Your task to perform on an android device: empty trash in the gmail app Image 0: 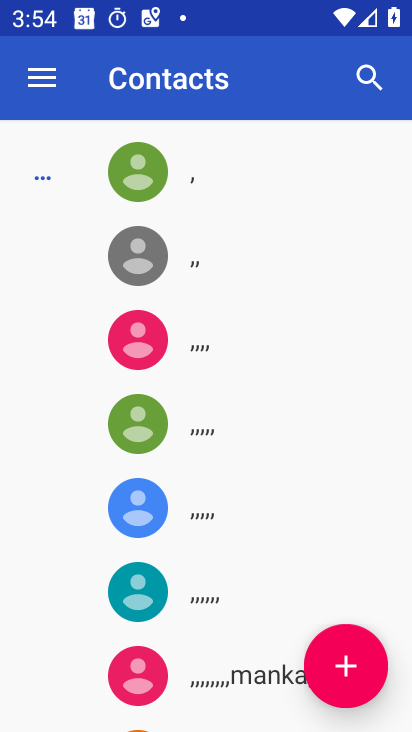
Step 0: press home button
Your task to perform on an android device: empty trash in the gmail app Image 1: 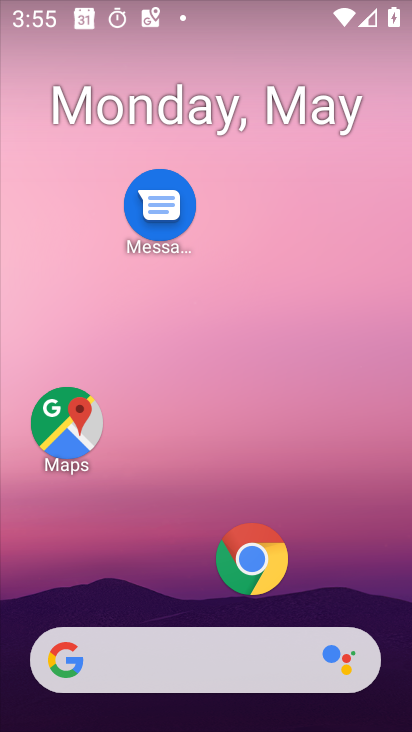
Step 1: drag from (142, 579) to (122, 178)
Your task to perform on an android device: empty trash in the gmail app Image 2: 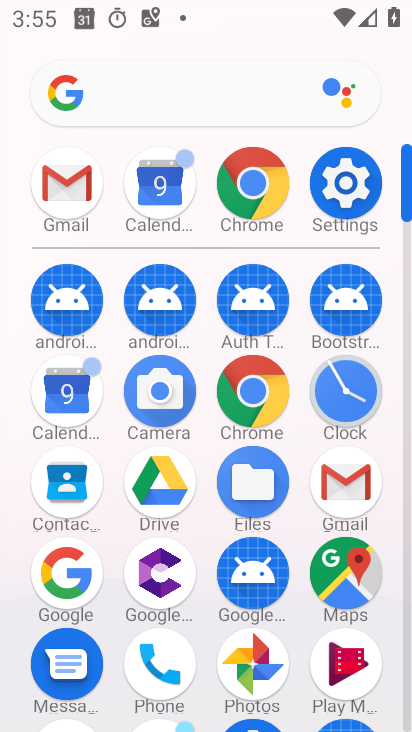
Step 2: click (58, 180)
Your task to perform on an android device: empty trash in the gmail app Image 3: 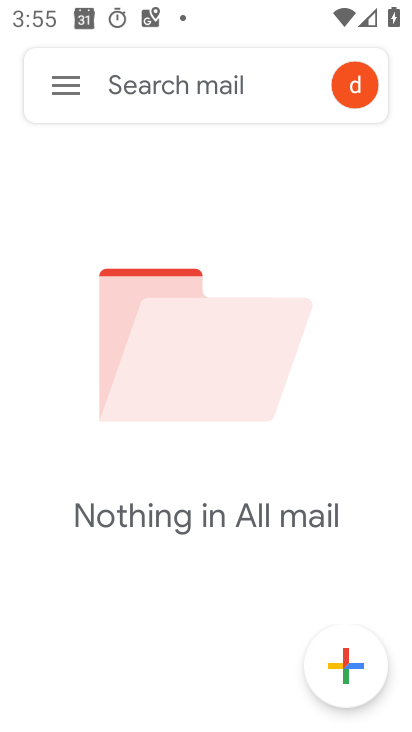
Step 3: click (47, 84)
Your task to perform on an android device: empty trash in the gmail app Image 4: 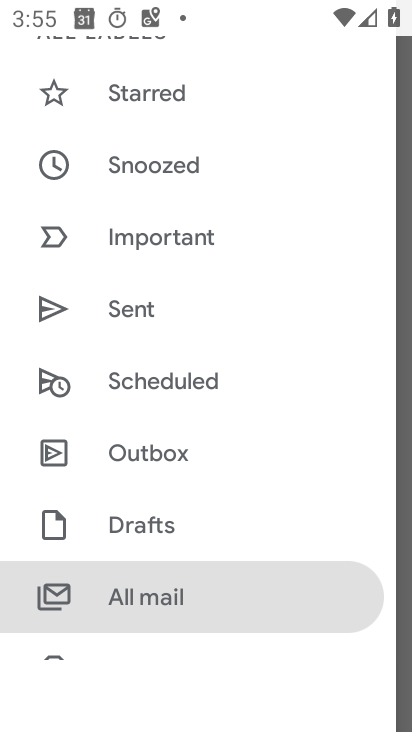
Step 4: drag from (135, 194) to (155, 158)
Your task to perform on an android device: empty trash in the gmail app Image 5: 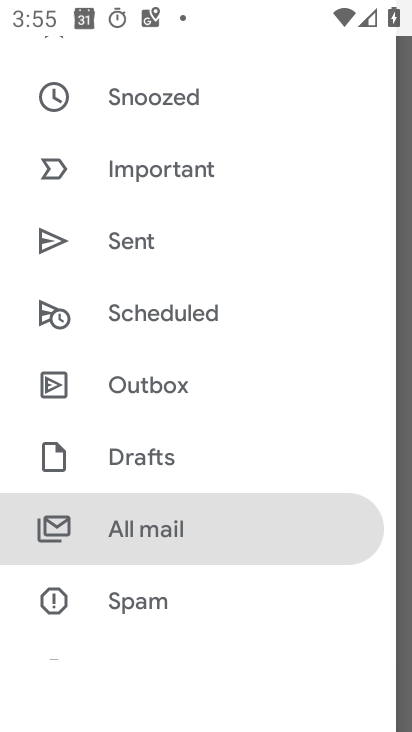
Step 5: drag from (142, 566) to (153, 206)
Your task to perform on an android device: empty trash in the gmail app Image 6: 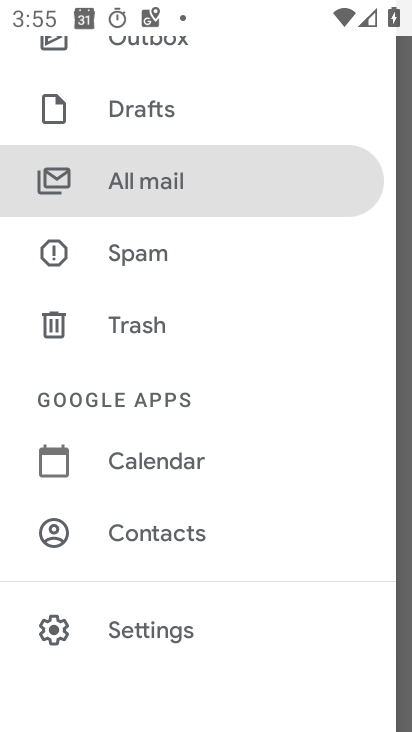
Step 6: click (147, 326)
Your task to perform on an android device: empty trash in the gmail app Image 7: 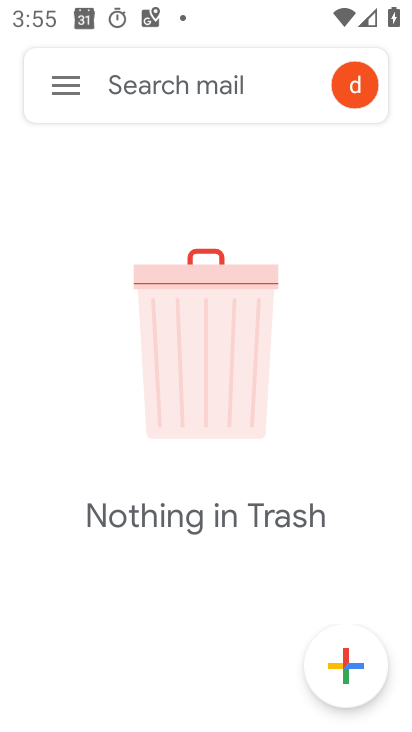
Step 7: task complete